Your task to perform on an android device: turn on the 24-hour format for clock Image 0: 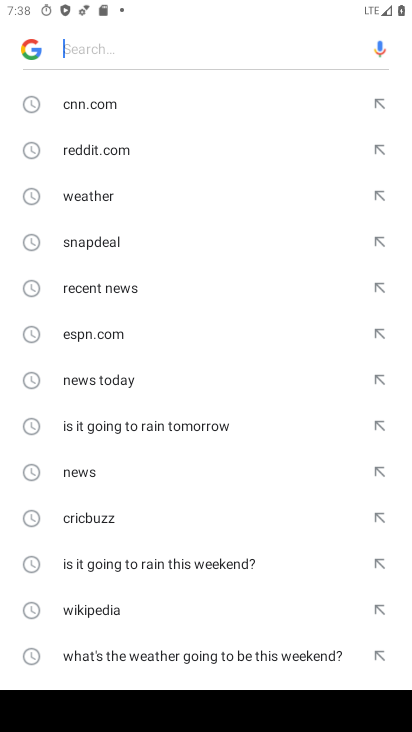
Step 0: press home button
Your task to perform on an android device: turn on the 24-hour format for clock Image 1: 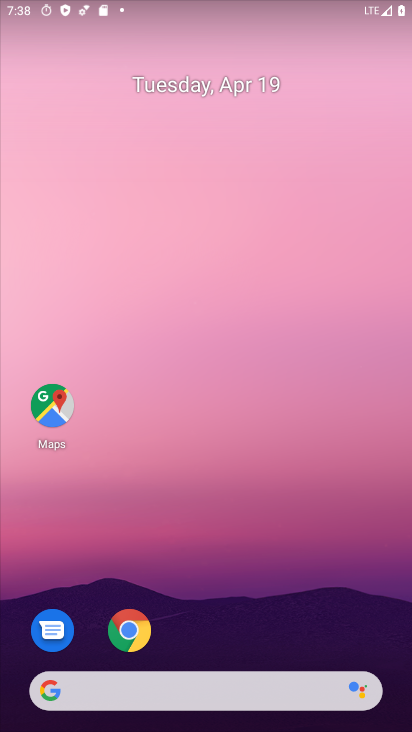
Step 1: drag from (198, 655) to (190, 28)
Your task to perform on an android device: turn on the 24-hour format for clock Image 2: 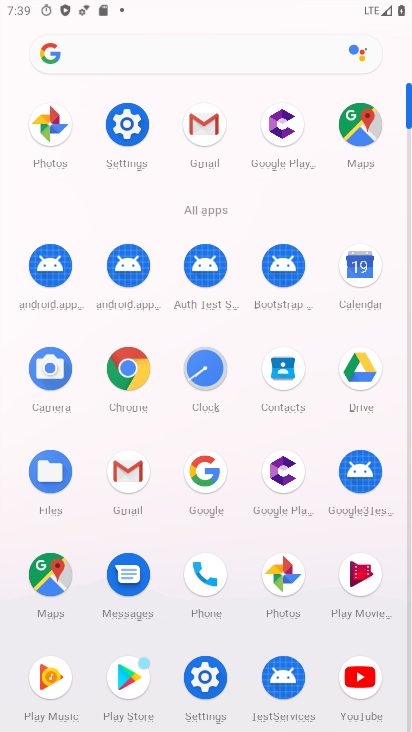
Step 2: click (199, 372)
Your task to perform on an android device: turn on the 24-hour format for clock Image 3: 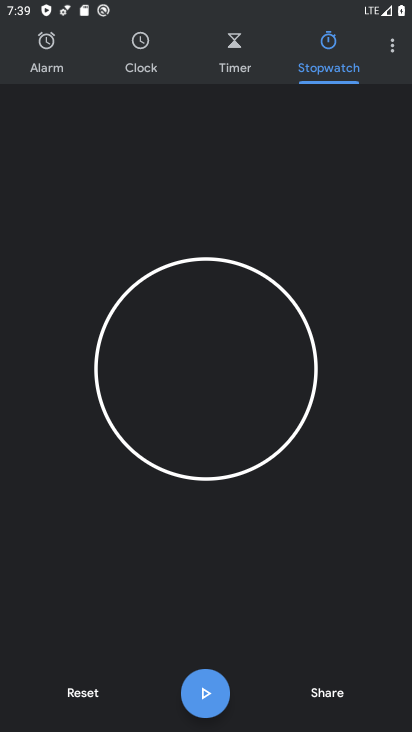
Step 3: click (392, 50)
Your task to perform on an android device: turn on the 24-hour format for clock Image 4: 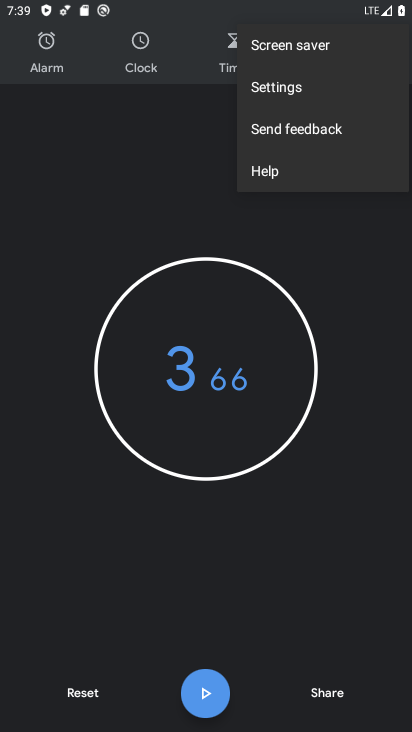
Step 4: click (321, 104)
Your task to perform on an android device: turn on the 24-hour format for clock Image 5: 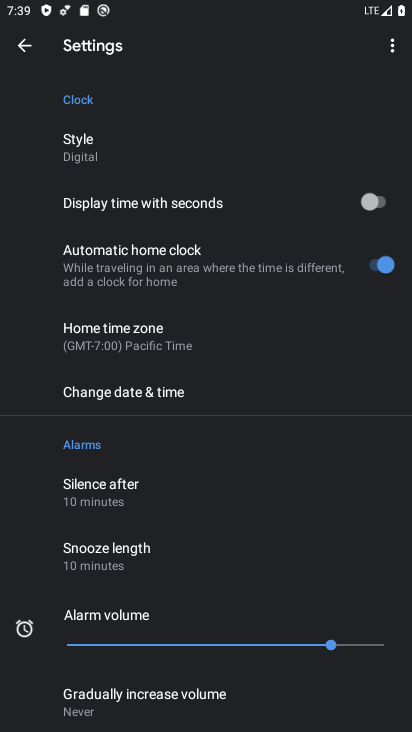
Step 5: click (127, 388)
Your task to perform on an android device: turn on the 24-hour format for clock Image 6: 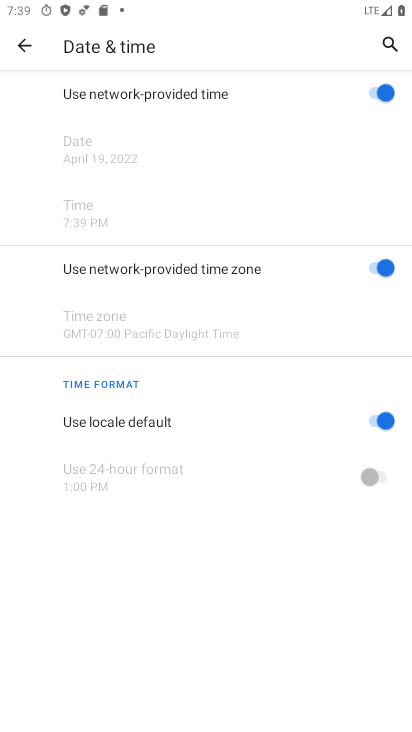
Step 6: click (383, 420)
Your task to perform on an android device: turn on the 24-hour format for clock Image 7: 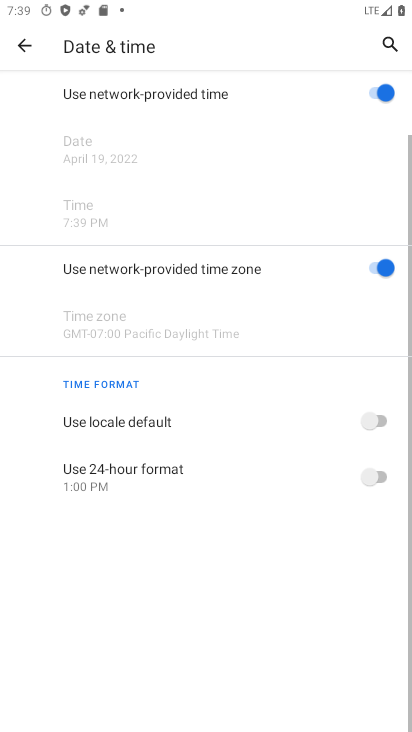
Step 7: click (367, 469)
Your task to perform on an android device: turn on the 24-hour format for clock Image 8: 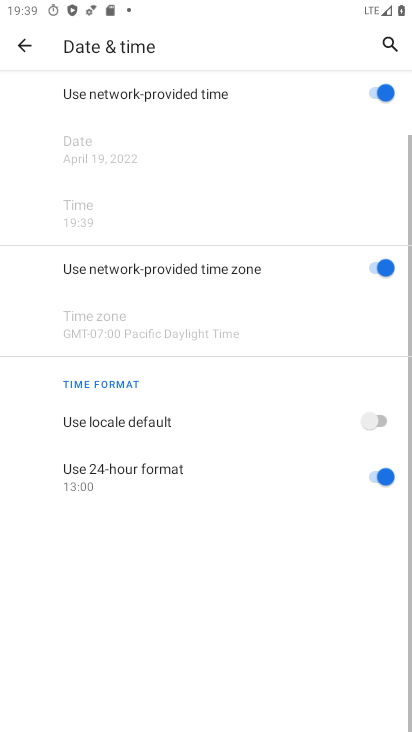
Step 8: task complete